Your task to perform on an android device: Play the last video I watched on Youtube Image 0: 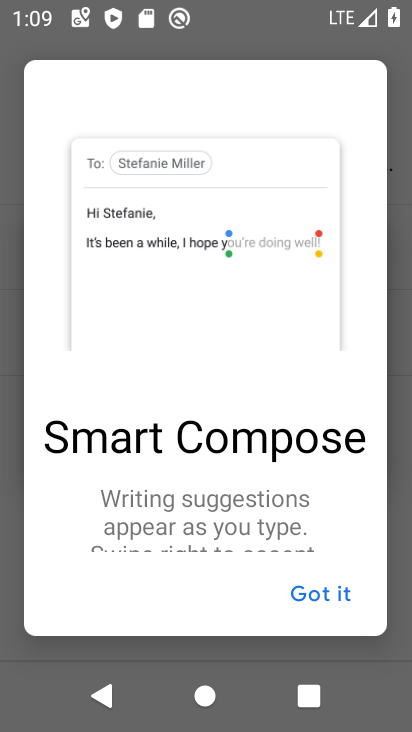
Step 0: drag from (259, 536) to (411, 290)
Your task to perform on an android device: Play the last video I watched on Youtube Image 1: 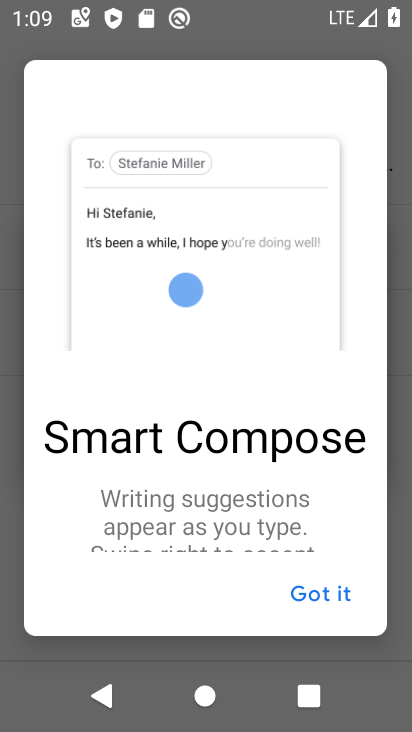
Step 1: press home button
Your task to perform on an android device: Play the last video I watched on Youtube Image 2: 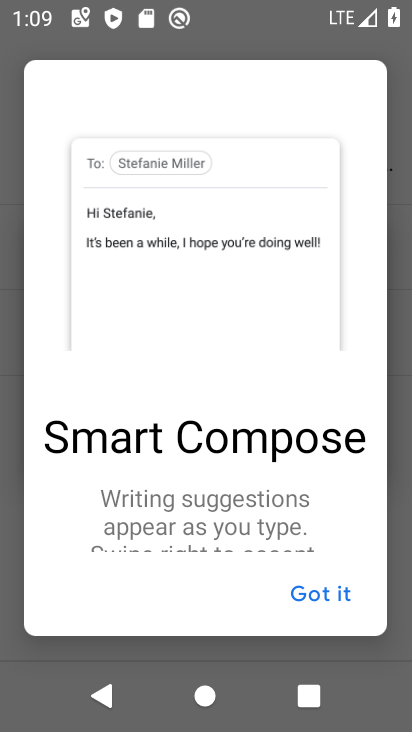
Step 2: click (411, 290)
Your task to perform on an android device: Play the last video I watched on Youtube Image 3: 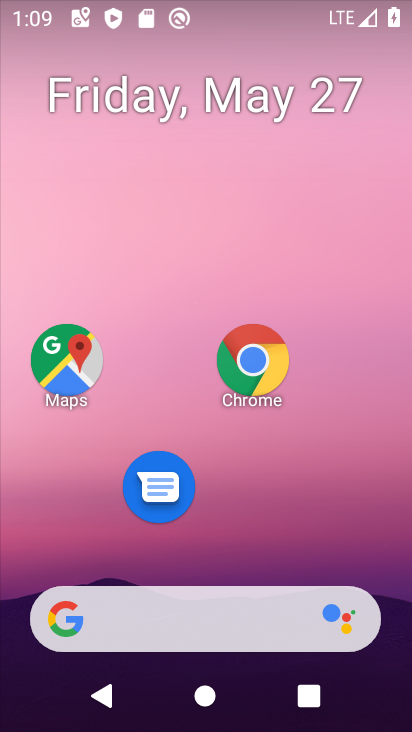
Step 3: drag from (252, 494) to (293, 51)
Your task to perform on an android device: Play the last video I watched on Youtube Image 4: 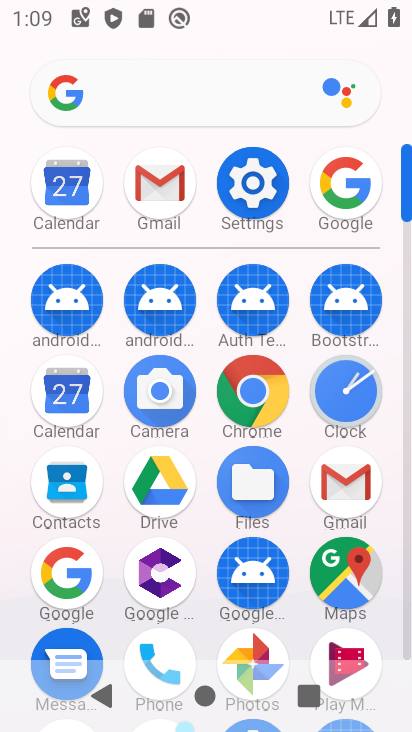
Step 4: drag from (295, 628) to (304, 140)
Your task to perform on an android device: Play the last video I watched on Youtube Image 5: 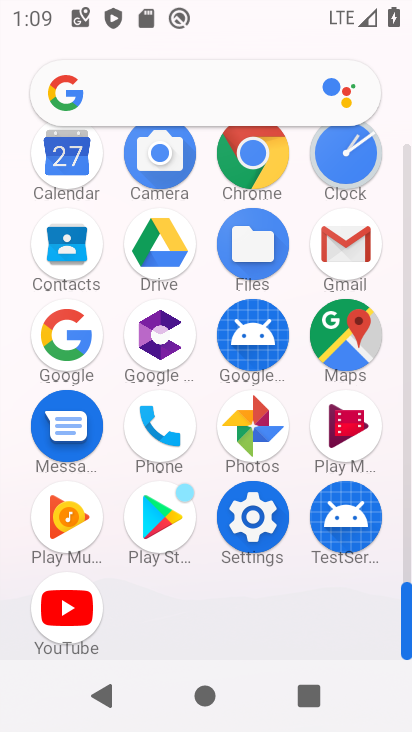
Step 5: click (64, 611)
Your task to perform on an android device: Play the last video I watched on Youtube Image 6: 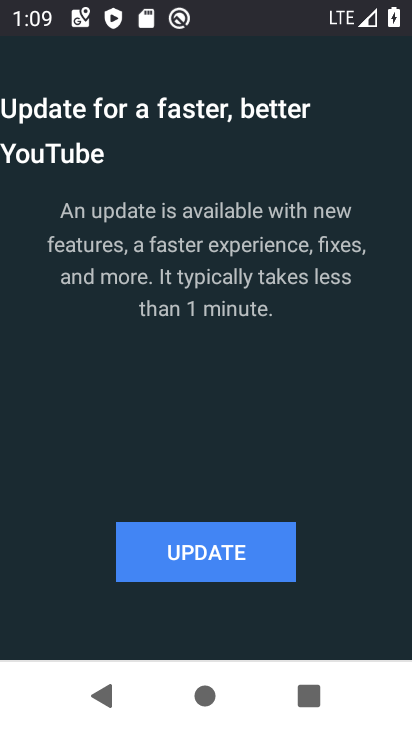
Step 6: click (192, 566)
Your task to perform on an android device: Play the last video I watched on Youtube Image 7: 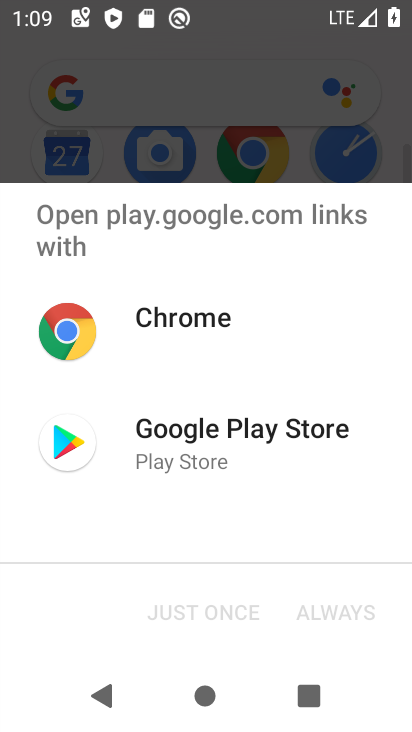
Step 7: click (175, 434)
Your task to perform on an android device: Play the last video I watched on Youtube Image 8: 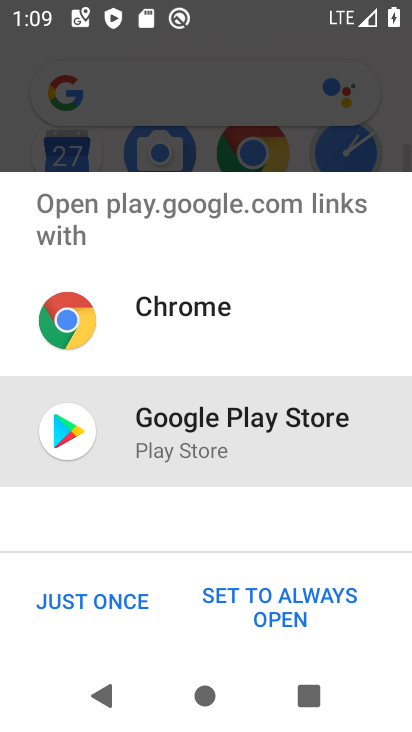
Step 8: click (117, 594)
Your task to perform on an android device: Play the last video I watched on Youtube Image 9: 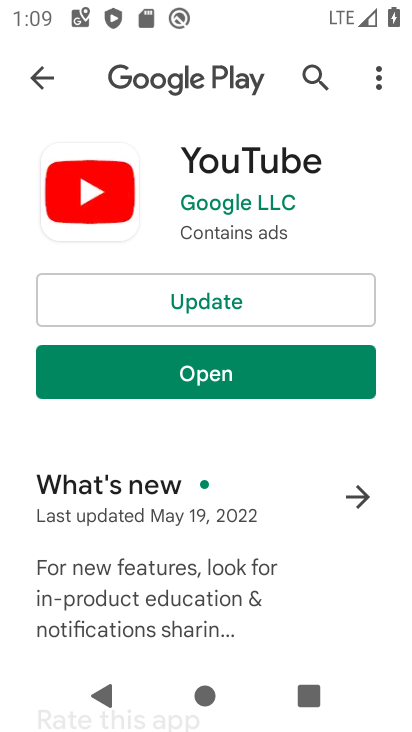
Step 9: click (221, 299)
Your task to perform on an android device: Play the last video I watched on Youtube Image 10: 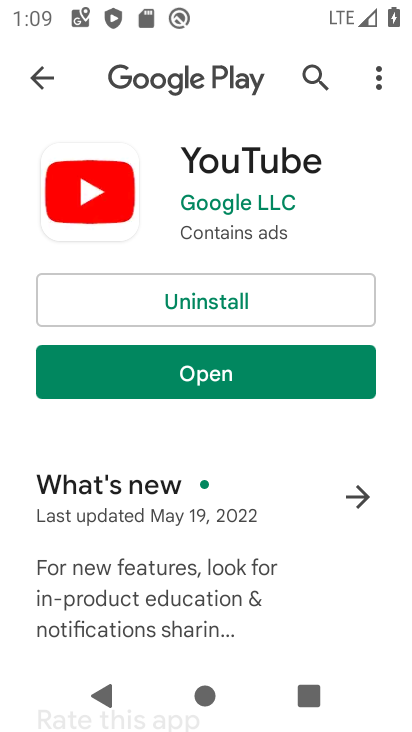
Step 10: click (240, 361)
Your task to perform on an android device: Play the last video I watched on Youtube Image 11: 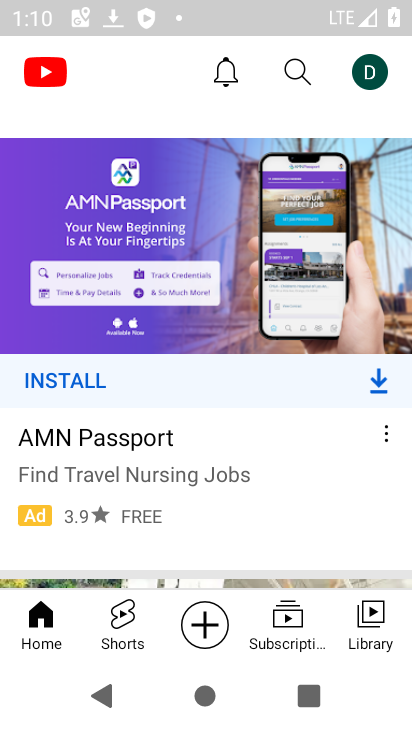
Step 11: click (299, 65)
Your task to perform on an android device: Play the last video I watched on Youtube Image 12: 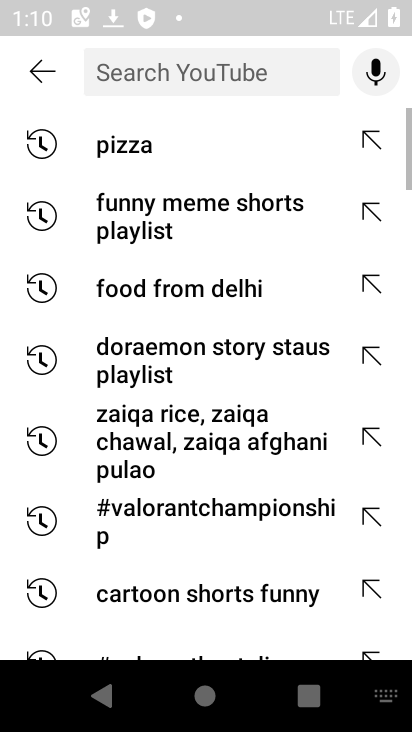
Step 12: click (140, 147)
Your task to perform on an android device: Play the last video I watched on Youtube Image 13: 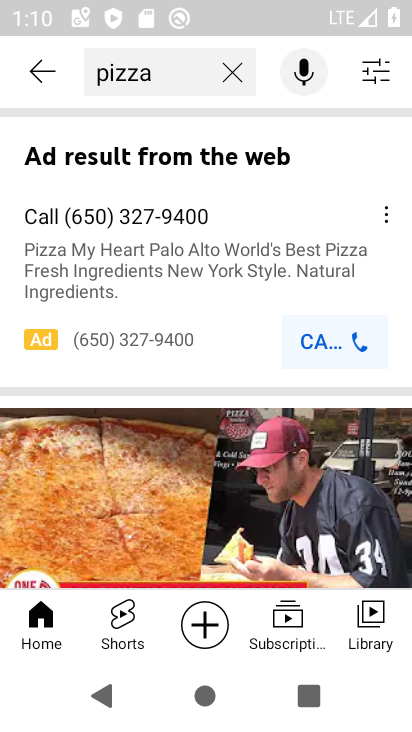
Step 13: drag from (227, 522) to (246, 316)
Your task to perform on an android device: Play the last video I watched on Youtube Image 14: 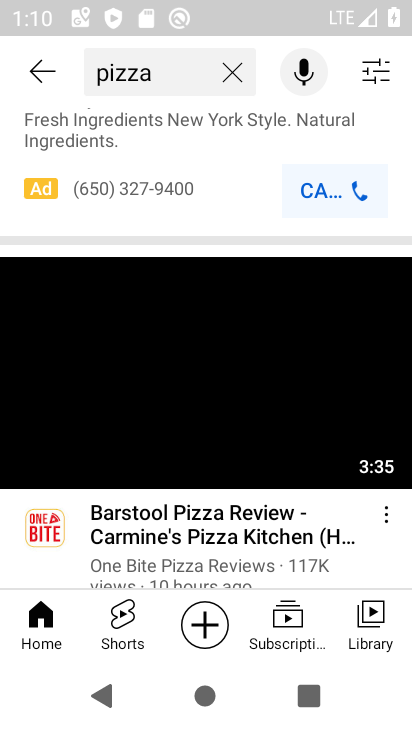
Step 14: click (213, 395)
Your task to perform on an android device: Play the last video I watched on Youtube Image 15: 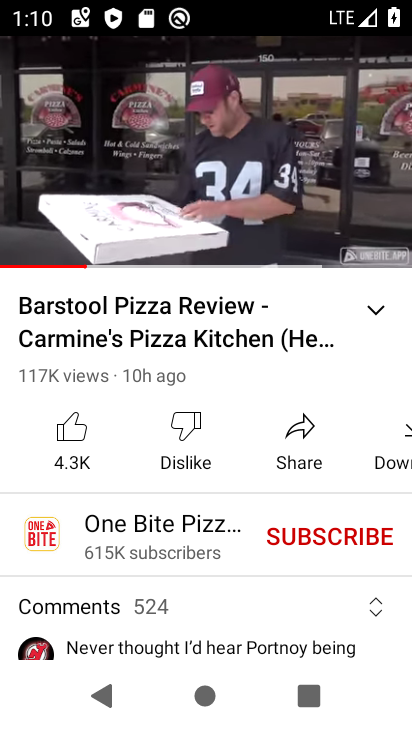
Step 15: task complete